Your task to perform on an android device: Go to settings Image 0: 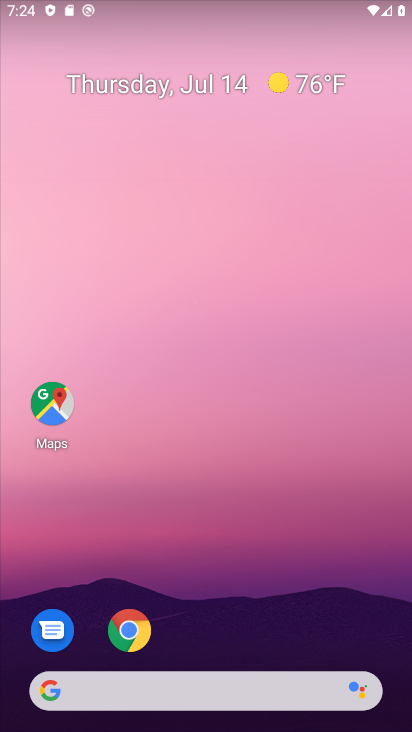
Step 0: drag from (255, 639) to (1, 410)
Your task to perform on an android device: Go to settings Image 1: 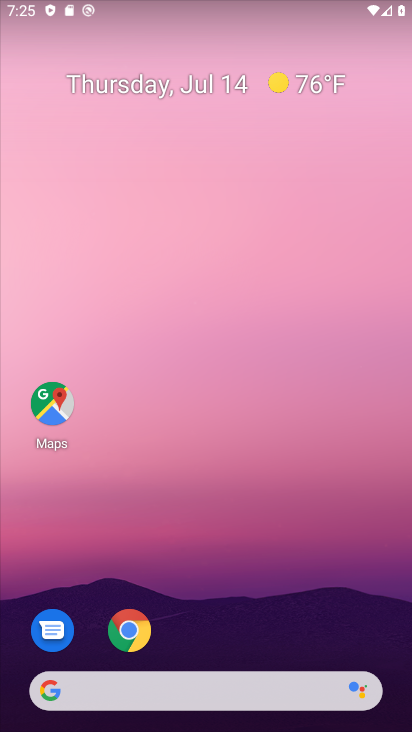
Step 1: drag from (289, 479) to (282, 228)
Your task to perform on an android device: Go to settings Image 2: 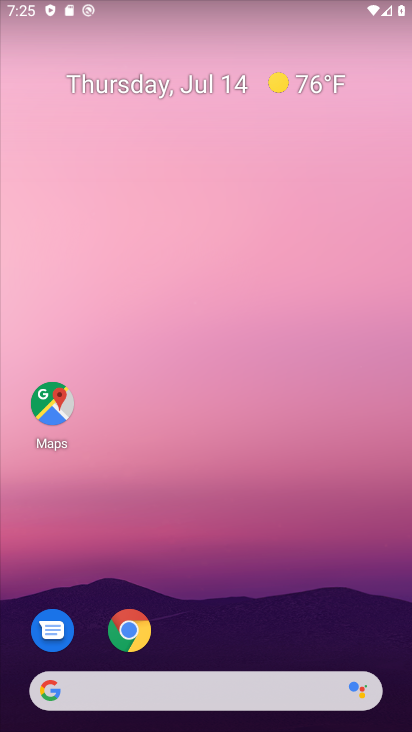
Step 2: drag from (263, 645) to (125, 24)
Your task to perform on an android device: Go to settings Image 3: 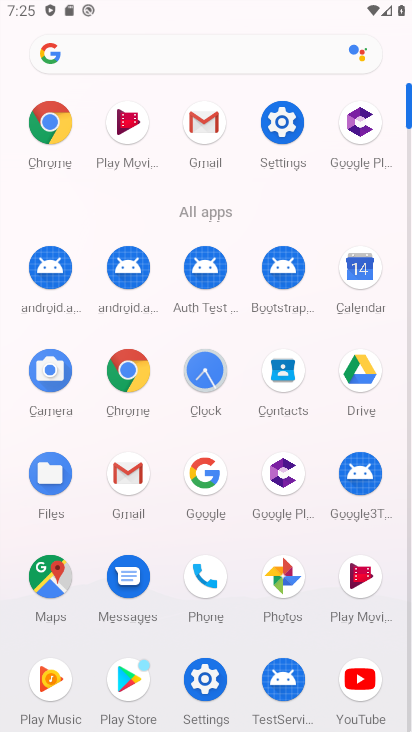
Step 3: click (281, 116)
Your task to perform on an android device: Go to settings Image 4: 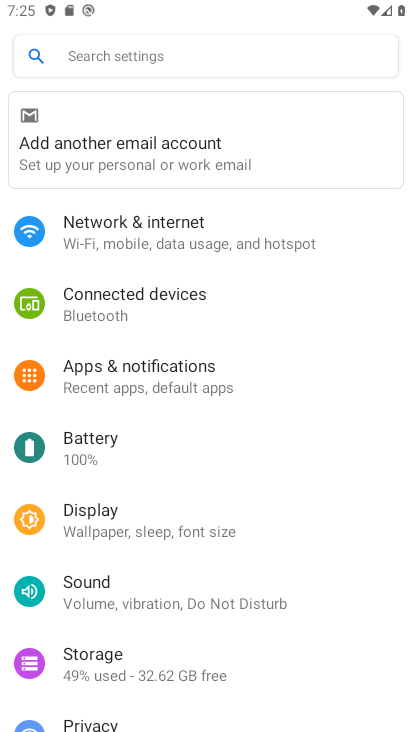
Step 4: task complete